Your task to perform on an android device: check the backup settings in the google photos Image 0: 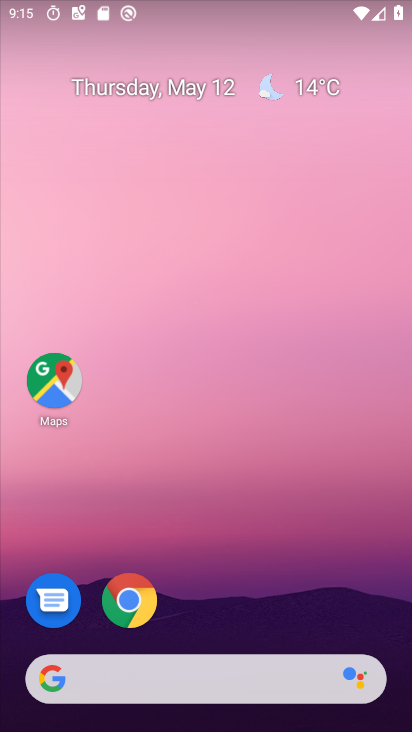
Step 0: drag from (317, 624) to (411, 377)
Your task to perform on an android device: check the backup settings in the google photos Image 1: 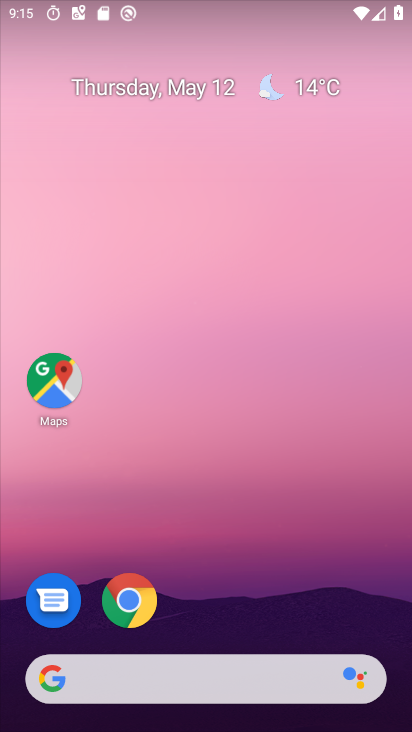
Step 1: drag from (271, 605) to (111, 35)
Your task to perform on an android device: check the backup settings in the google photos Image 2: 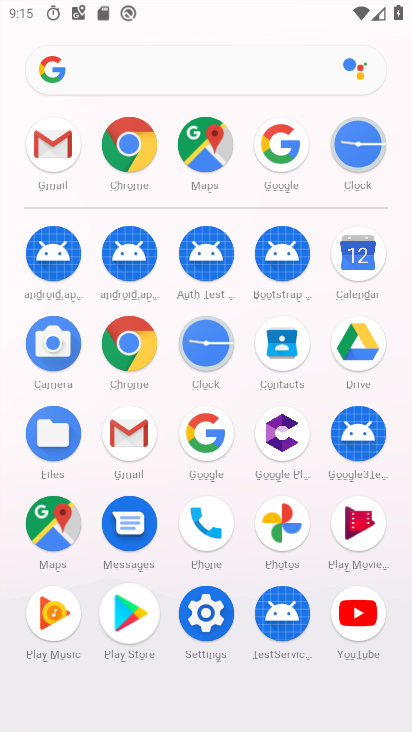
Step 2: drag from (252, 375) to (151, 5)
Your task to perform on an android device: check the backup settings in the google photos Image 3: 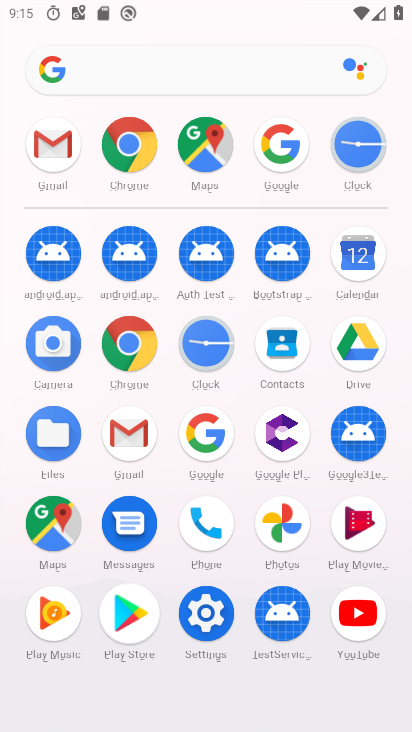
Step 3: drag from (243, 323) to (179, 117)
Your task to perform on an android device: check the backup settings in the google photos Image 4: 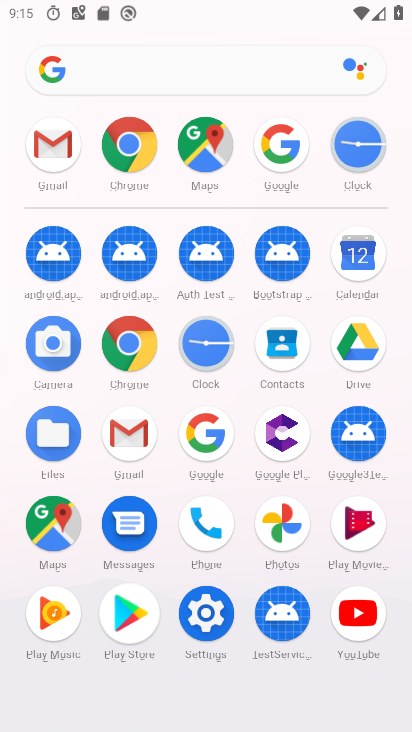
Step 4: drag from (241, 600) to (173, 287)
Your task to perform on an android device: check the backup settings in the google photos Image 5: 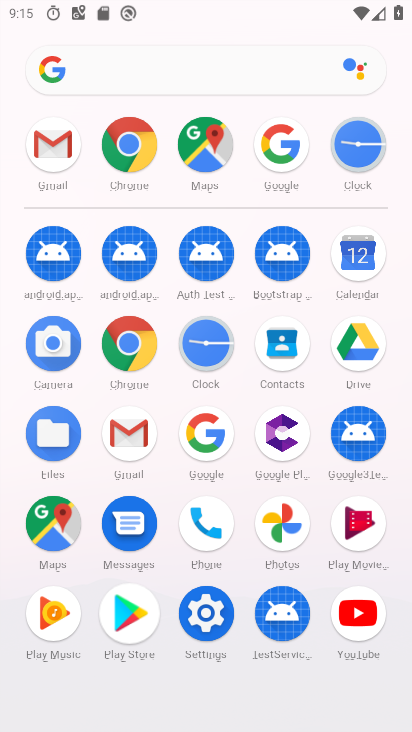
Step 5: click (196, 438)
Your task to perform on an android device: check the backup settings in the google photos Image 6: 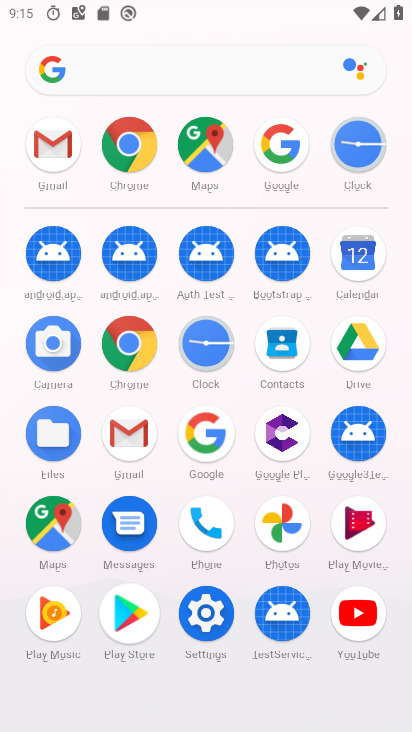
Step 6: click (196, 438)
Your task to perform on an android device: check the backup settings in the google photos Image 7: 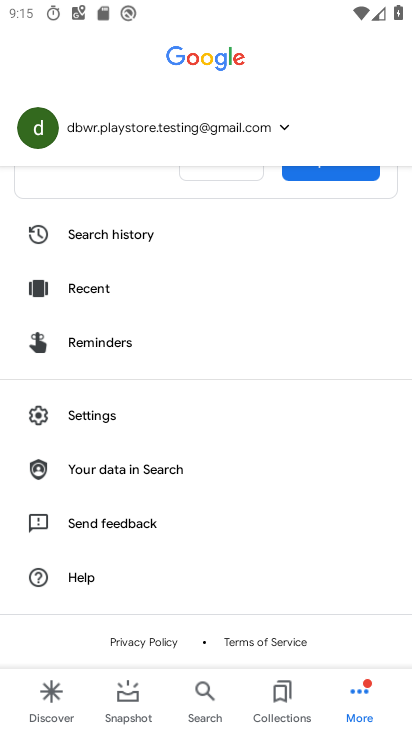
Step 7: press back button
Your task to perform on an android device: check the backup settings in the google photos Image 8: 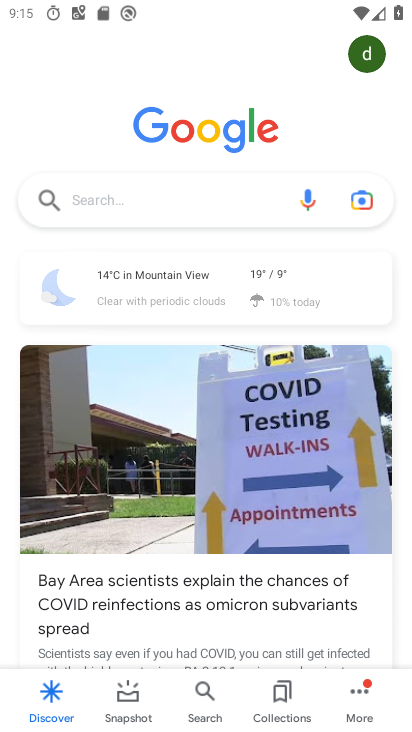
Step 8: press home button
Your task to perform on an android device: check the backup settings in the google photos Image 9: 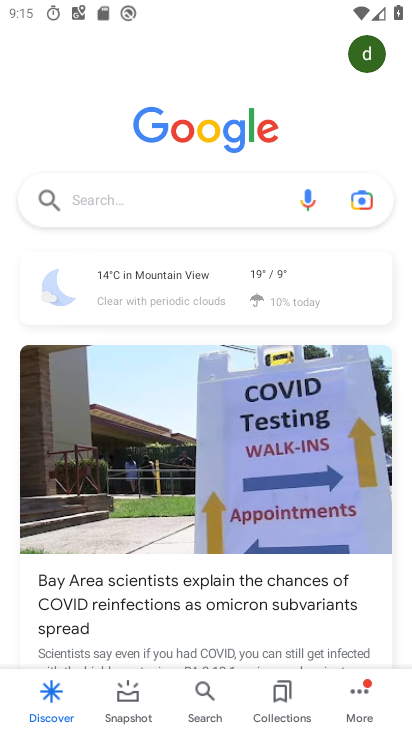
Step 9: press home button
Your task to perform on an android device: check the backup settings in the google photos Image 10: 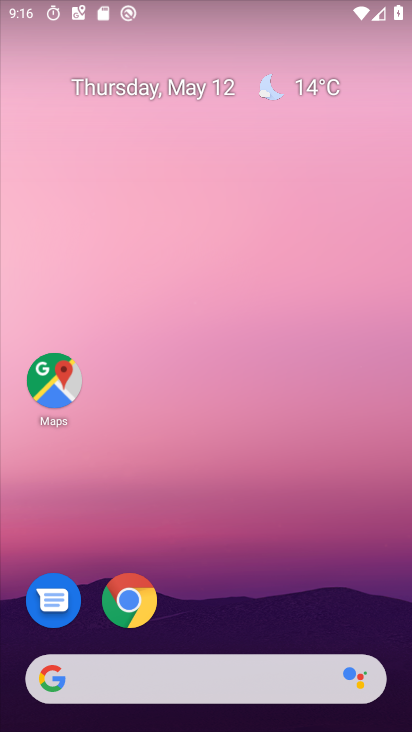
Step 10: drag from (233, 575) to (123, 149)
Your task to perform on an android device: check the backup settings in the google photos Image 11: 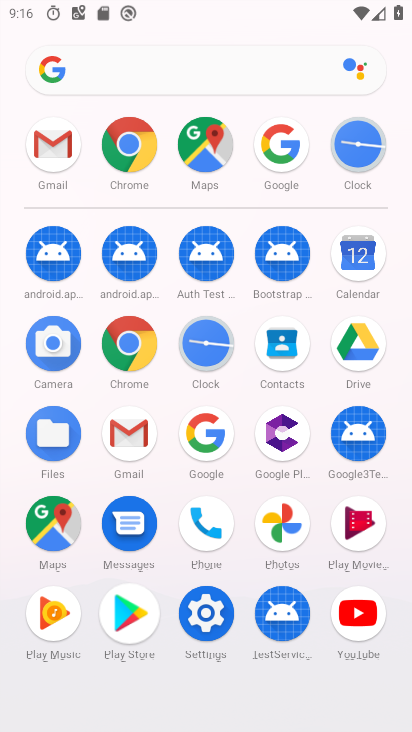
Step 11: click (286, 528)
Your task to perform on an android device: check the backup settings in the google photos Image 12: 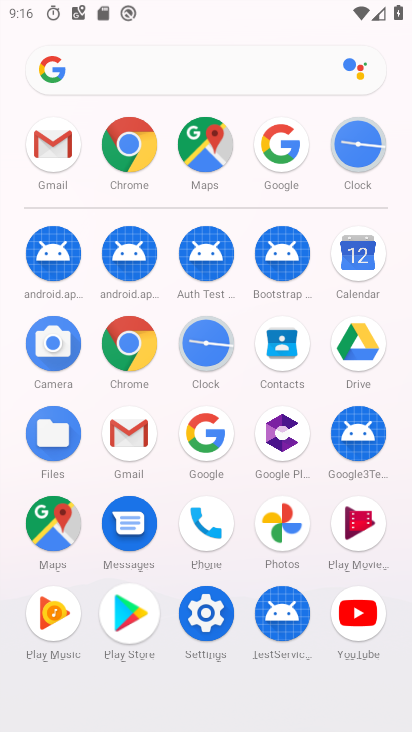
Step 12: click (285, 524)
Your task to perform on an android device: check the backup settings in the google photos Image 13: 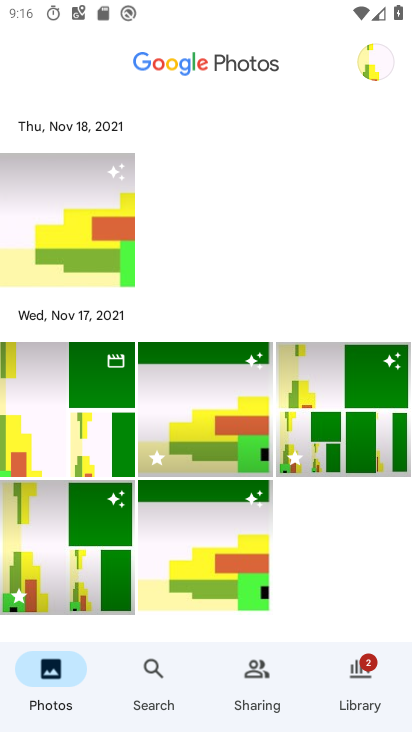
Step 13: task complete